Your task to perform on an android device: move an email to a new category in the gmail app Image 0: 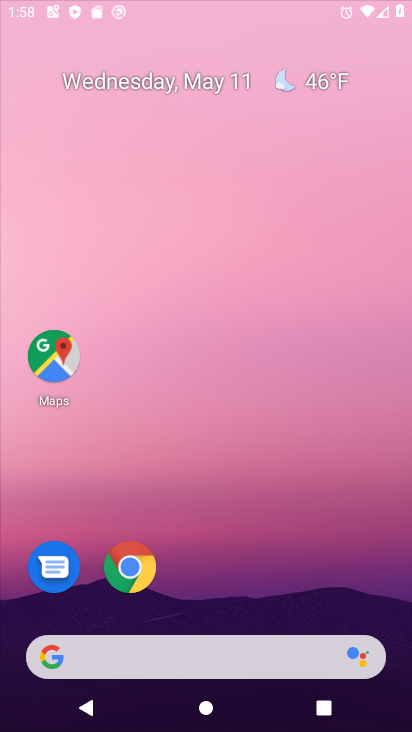
Step 0: drag from (206, 501) to (222, 27)
Your task to perform on an android device: move an email to a new category in the gmail app Image 1: 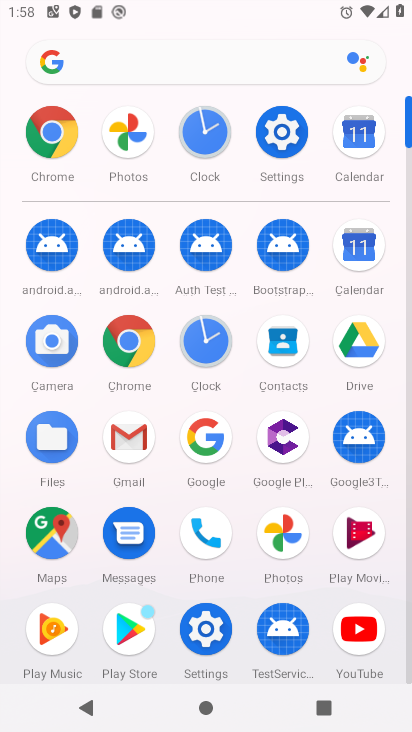
Step 1: click (139, 430)
Your task to perform on an android device: move an email to a new category in the gmail app Image 2: 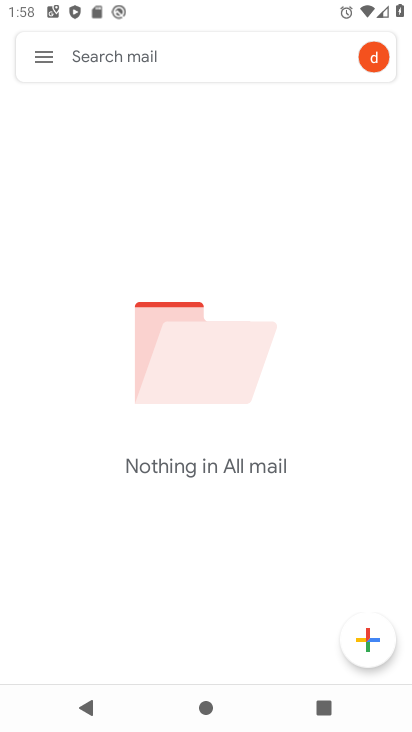
Step 2: task complete